Your task to perform on an android device: allow notifications from all sites in the chrome app Image 0: 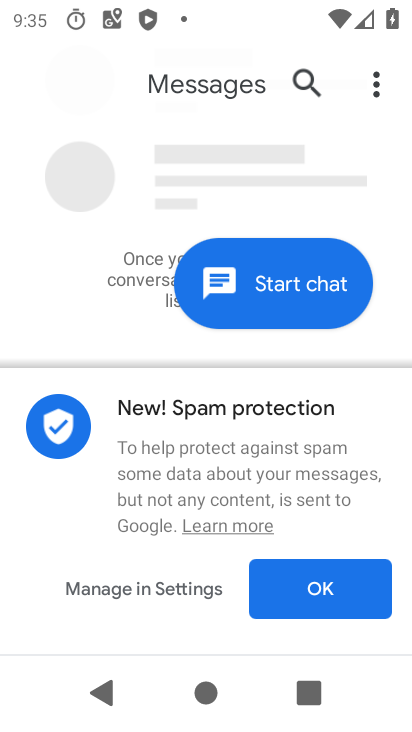
Step 0: press home button
Your task to perform on an android device: allow notifications from all sites in the chrome app Image 1: 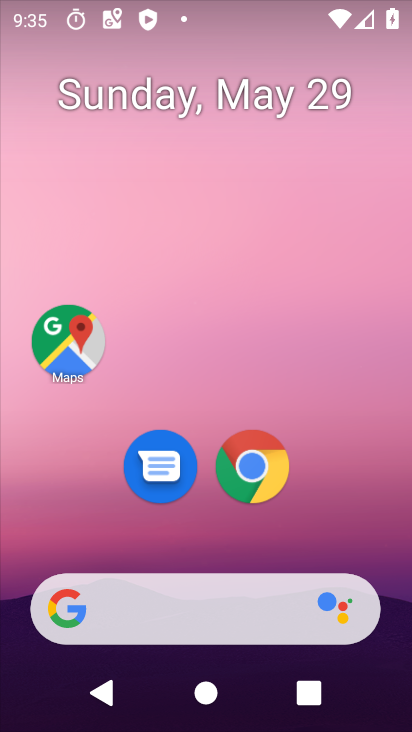
Step 1: click (253, 480)
Your task to perform on an android device: allow notifications from all sites in the chrome app Image 2: 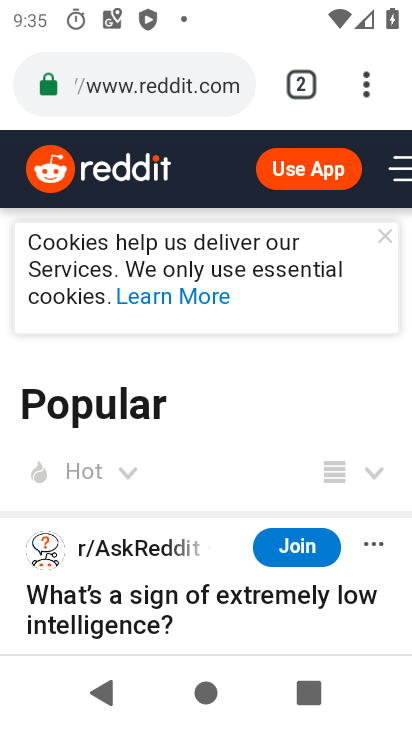
Step 2: drag from (355, 89) to (112, 523)
Your task to perform on an android device: allow notifications from all sites in the chrome app Image 3: 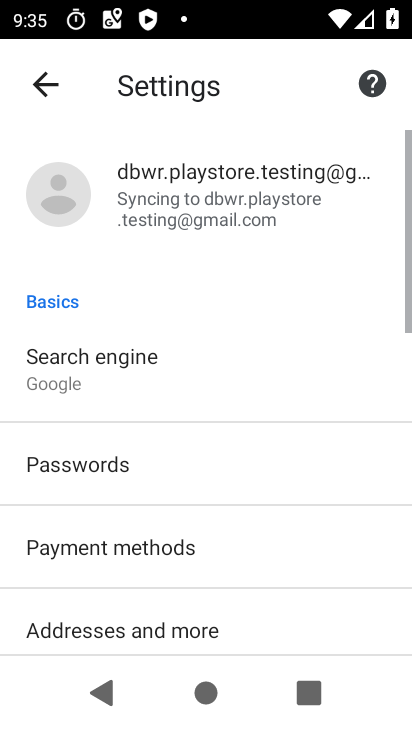
Step 3: drag from (147, 564) to (207, 216)
Your task to perform on an android device: allow notifications from all sites in the chrome app Image 4: 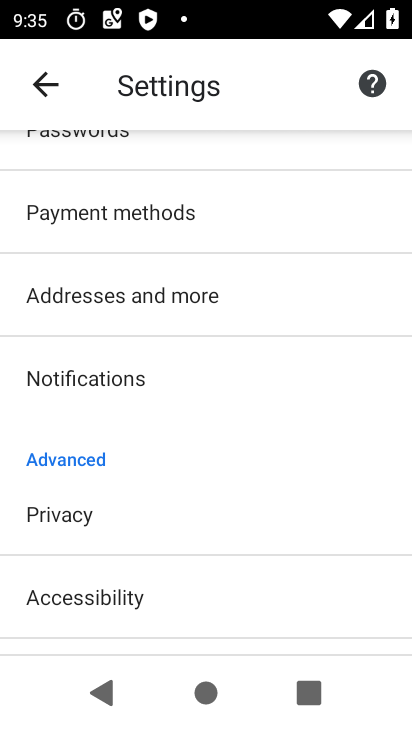
Step 4: drag from (148, 539) to (195, 286)
Your task to perform on an android device: allow notifications from all sites in the chrome app Image 5: 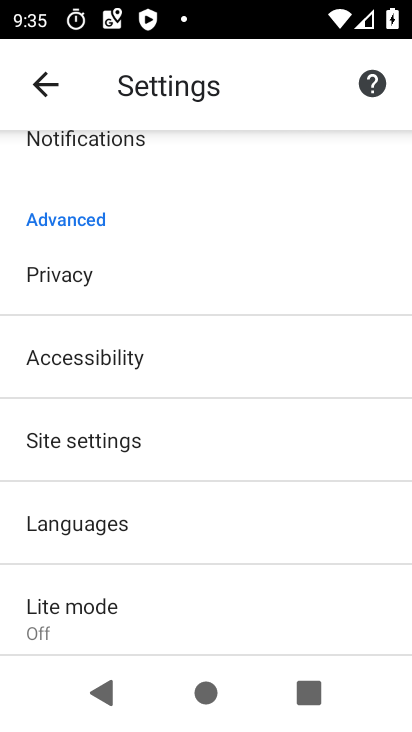
Step 5: click (158, 434)
Your task to perform on an android device: allow notifications from all sites in the chrome app Image 6: 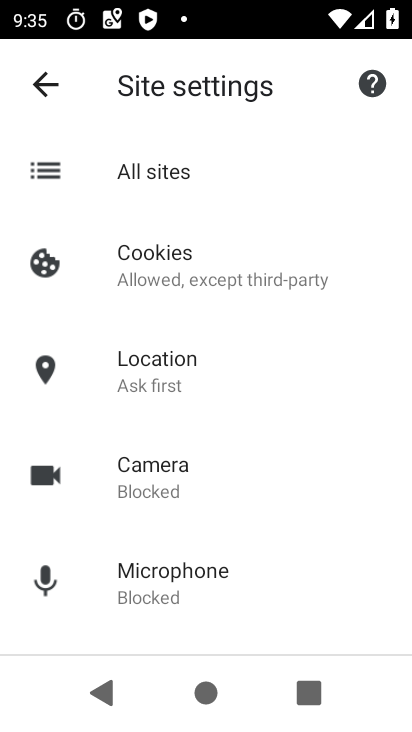
Step 6: click (152, 178)
Your task to perform on an android device: allow notifications from all sites in the chrome app Image 7: 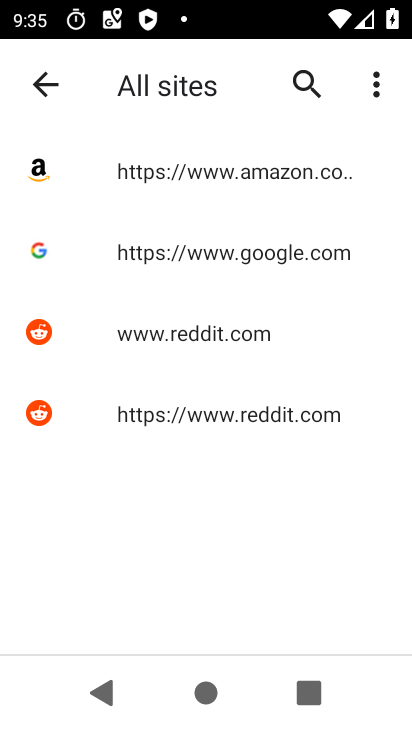
Step 7: click (209, 254)
Your task to perform on an android device: allow notifications from all sites in the chrome app Image 8: 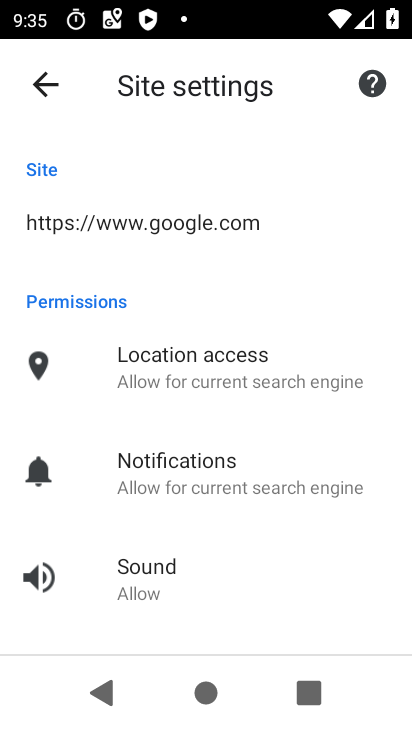
Step 8: click (220, 485)
Your task to perform on an android device: allow notifications from all sites in the chrome app Image 9: 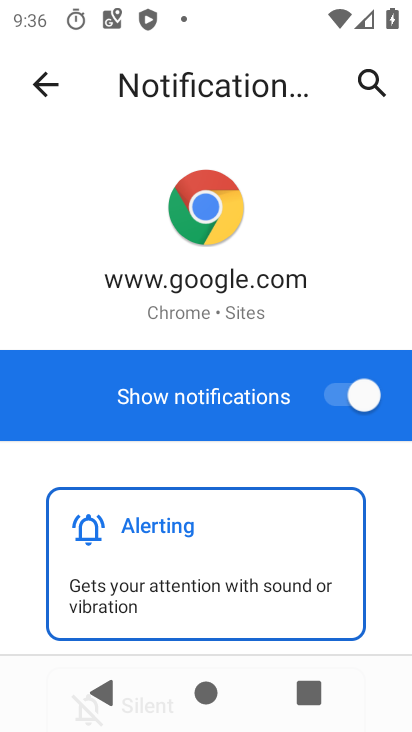
Step 9: task complete